Your task to perform on an android device: What is the recent news? Image 0: 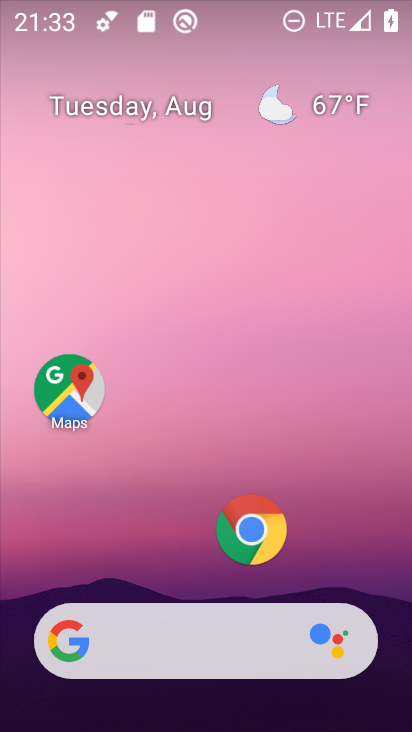
Step 0: drag from (195, 571) to (163, 171)
Your task to perform on an android device: What is the recent news? Image 1: 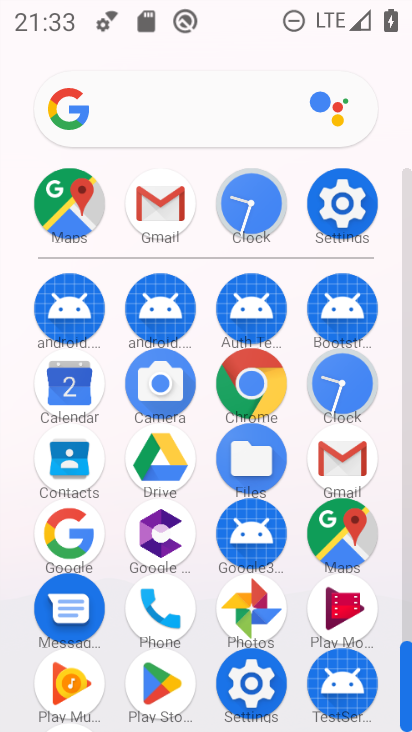
Step 1: click (151, 95)
Your task to perform on an android device: What is the recent news? Image 2: 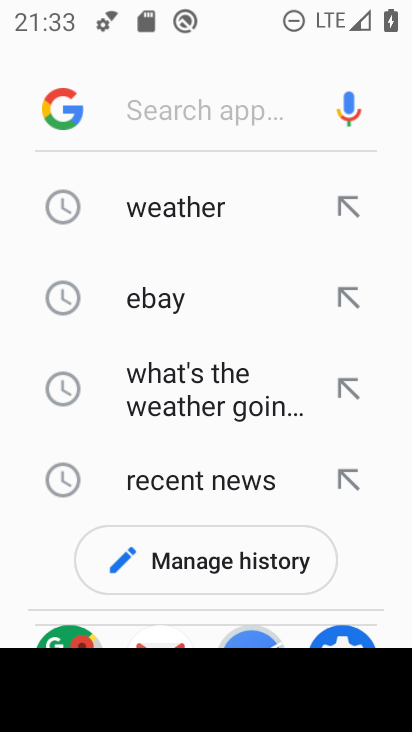
Step 2: type "What is the recent news?"
Your task to perform on an android device: What is the recent news? Image 3: 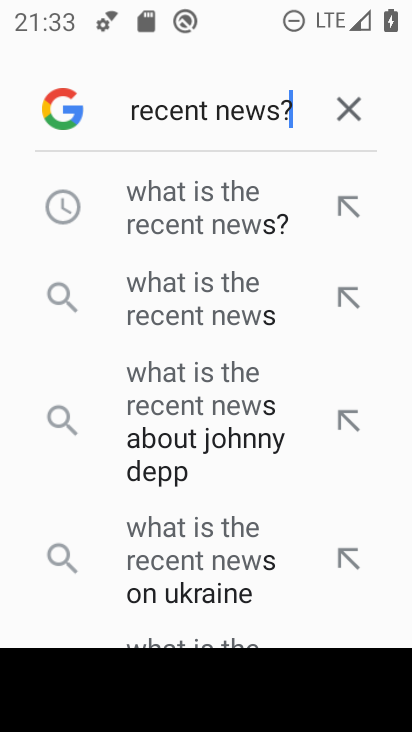
Step 3: type ""
Your task to perform on an android device: What is the recent news? Image 4: 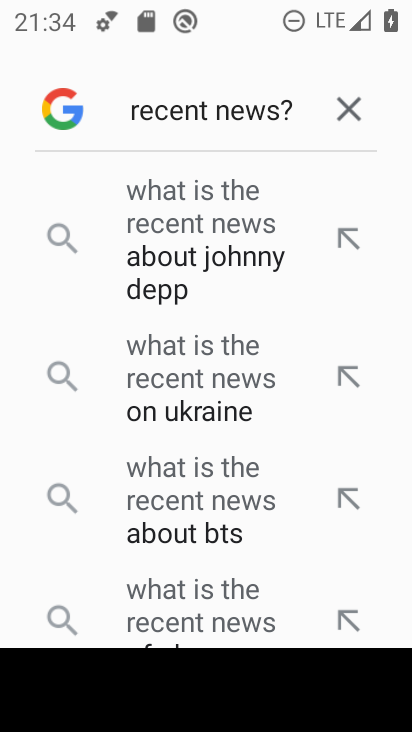
Step 4: drag from (177, 227) to (210, 533)
Your task to perform on an android device: What is the recent news? Image 5: 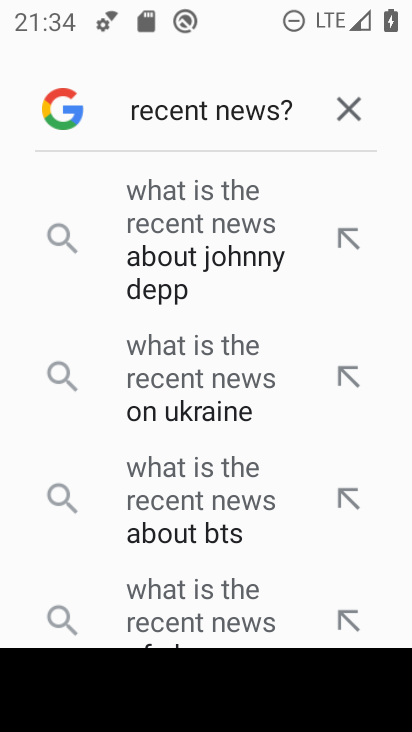
Step 5: click (185, 189)
Your task to perform on an android device: What is the recent news? Image 6: 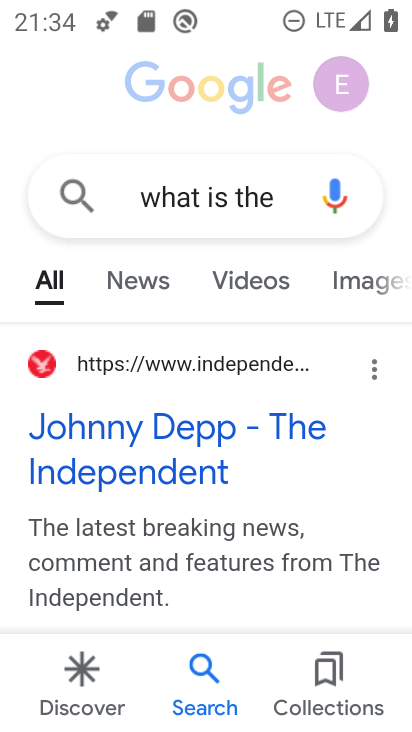
Step 6: task complete